Your task to perform on an android device: Check the weather Image 0: 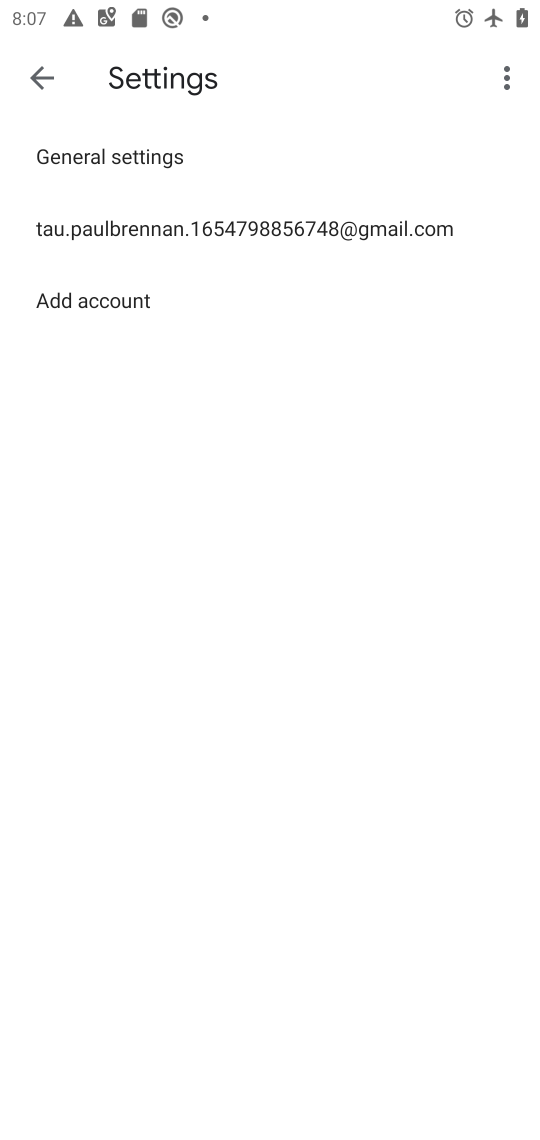
Step 0: press home button
Your task to perform on an android device: Check the weather Image 1: 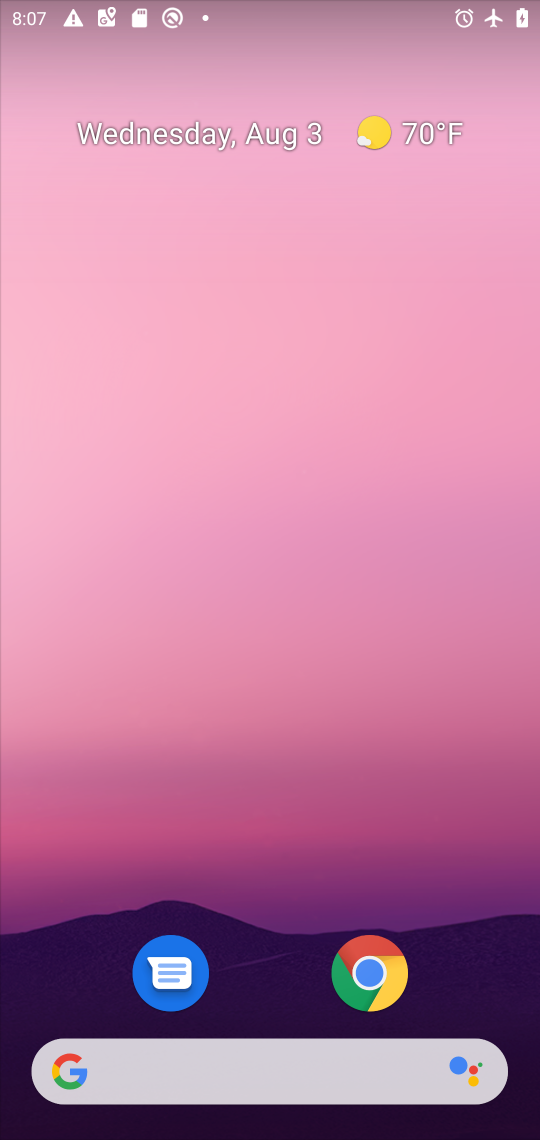
Step 1: click (418, 125)
Your task to perform on an android device: Check the weather Image 2: 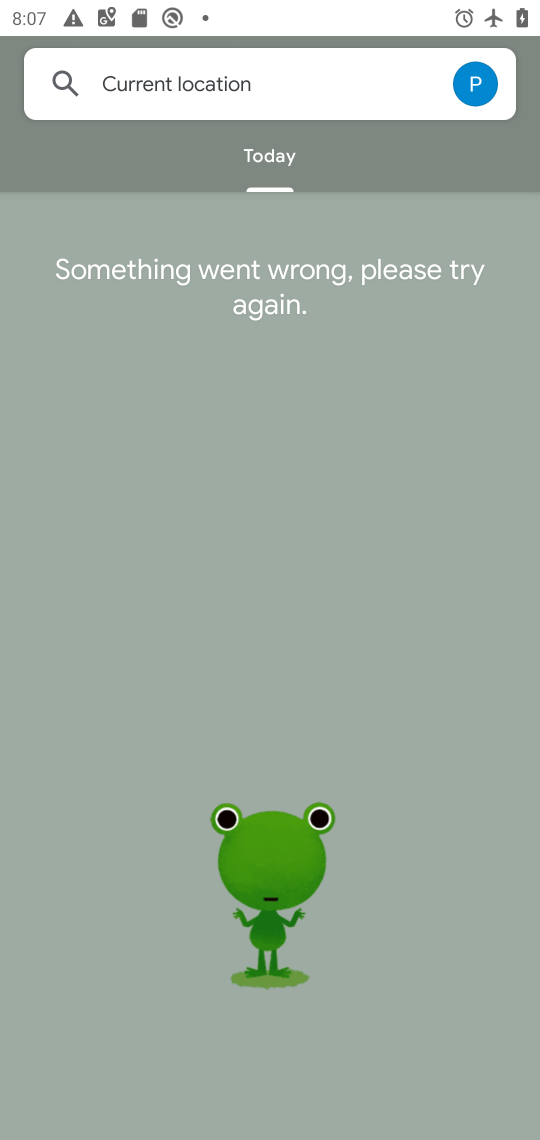
Step 2: task complete